Your task to perform on an android device: open app "Google Chrome" (install if not already installed) Image 0: 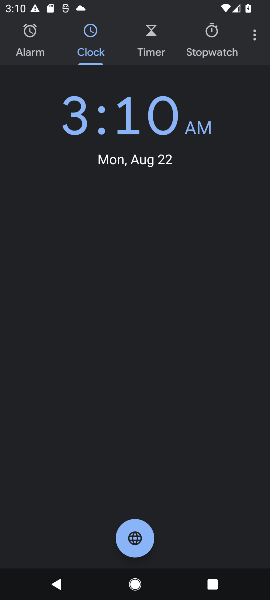
Step 0: press home button
Your task to perform on an android device: open app "Google Chrome" (install if not already installed) Image 1: 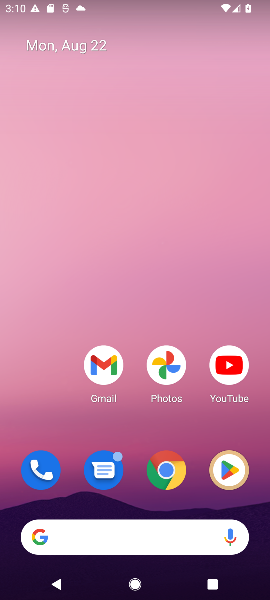
Step 1: drag from (83, 510) to (83, 287)
Your task to perform on an android device: open app "Google Chrome" (install if not already installed) Image 2: 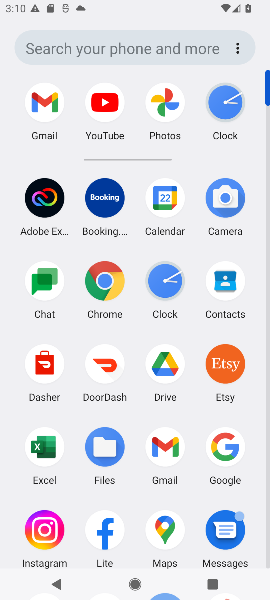
Step 2: drag from (136, 549) to (160, 309)
Your task to perform on an android device: open app "Google Chrome" (install if not already installed) Image 3: 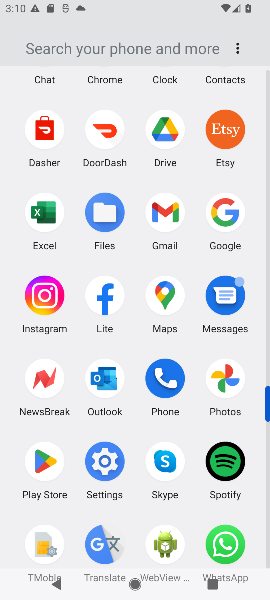
Step 3: drag from (102, 564) to (135, 321)
Your task to perform on an android device: open app "Google Chrome" (install if not already installed) Image 4: 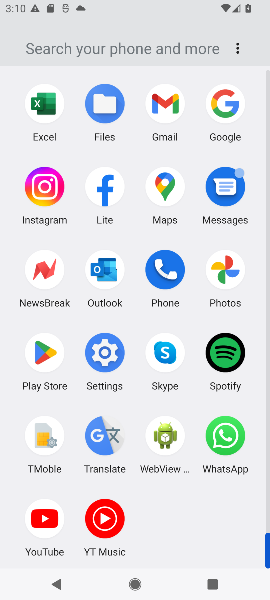
Step 4: click (33, 348)
Your task to perform on an android device: open app "Google Chrome" (install if not already installed) Image 5: 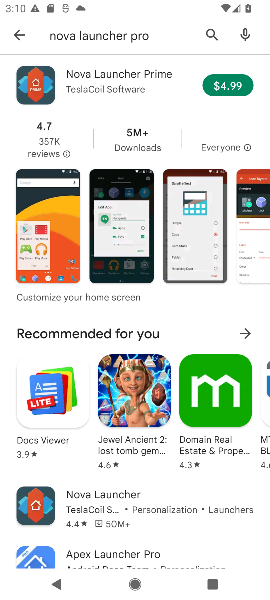
Step 5: click (19, 35)
Your task to perform on an android device: open app "Google Chrome" (install if not already installed) Image 6: 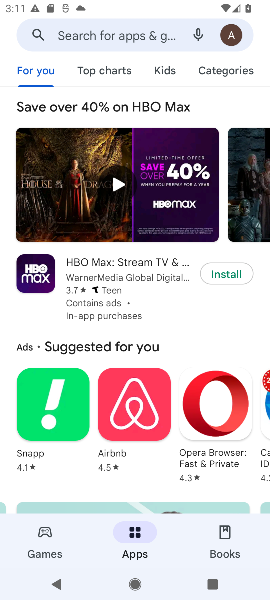
Step 6: click (120, 33)
Your task to perform on an android device: open app "Google Chrome" (install if not already installed) Image 7: 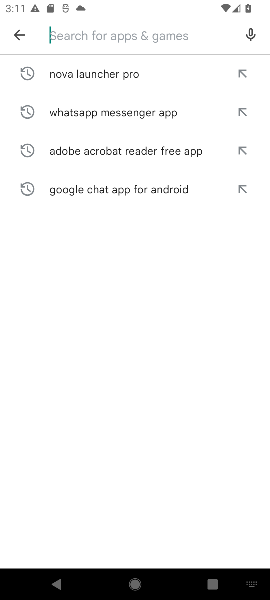
Step 7: type "Google Chrome "
Your task to perform on an android device: open app "Google Chrome" (install if not already installed) Image 8: 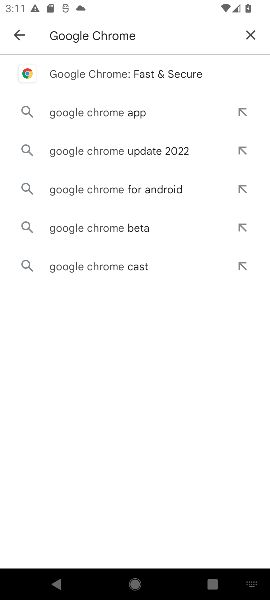
Step 8: click (111, 111)
Your task to perform on an android device: open app "Google Chrome" (install if not already installed) Image 9: 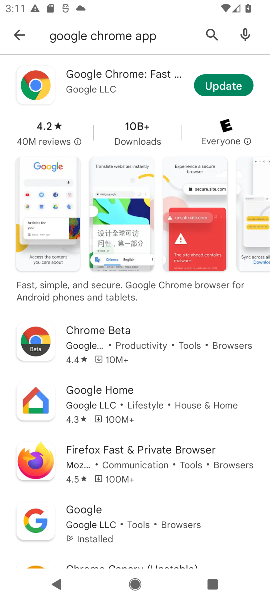
Step 9: click (214, 81)
Your task to perform on an android device: open app "Google Chrome" (install if not already installed) Image 10: 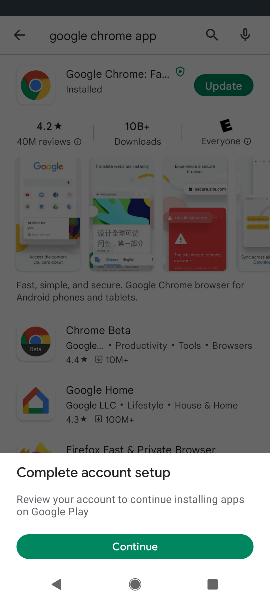
Step 10: click (161, 538)
Your task to perform on an android device: open app "Google Chrome" (install if not already installed) Image 11: 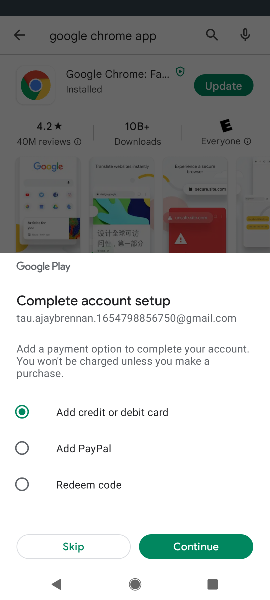
Step 11: task complete